Your task to perform on an android device: set default search engine in the chrome app Image 0: 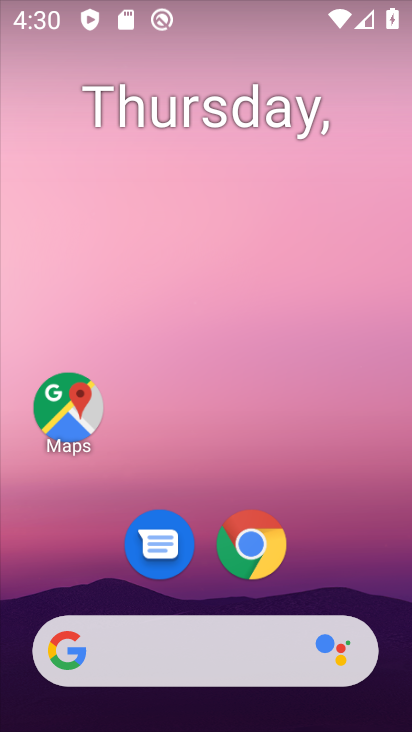
Step 0: click (253, 533)
Your task to perform on an android device: set default search engine in the chrome app Image 1: 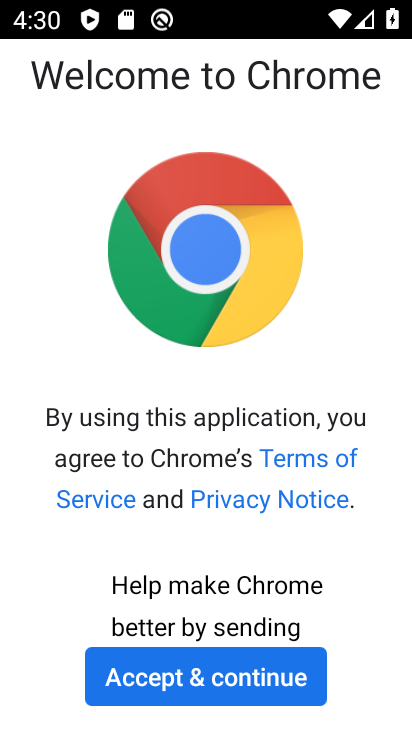
Step 1: click (232, 677)
Your task to perform on an android device: set default search engine in the chrome app Image 2: 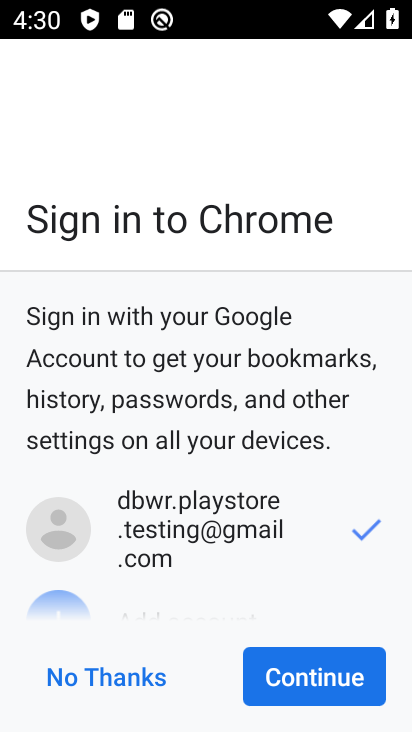
Step 2: click (275, 677)
Your task to perform on an android device: set default search engine in the chrome app Image 3: 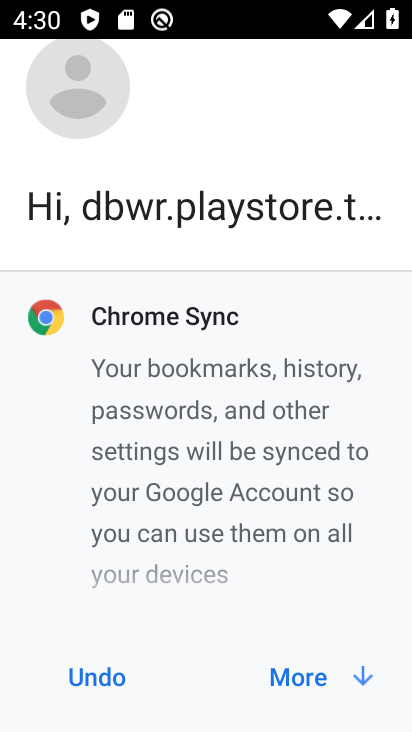
Step 3: click (275, 677)
Your task to perform on an android device: set default search engine in the chrome app Image 4: 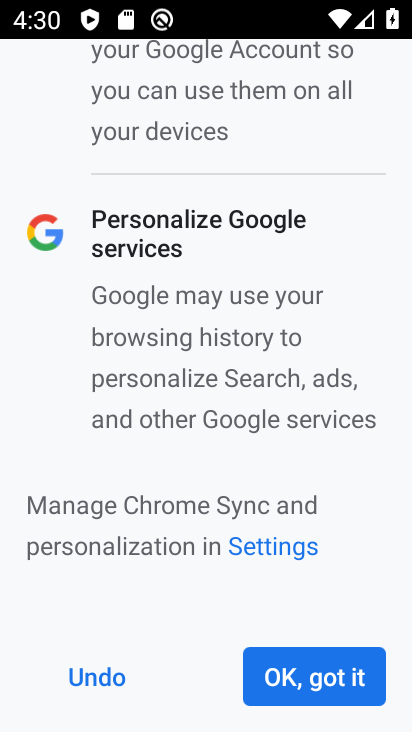
Step 4: click (275, 676)
Your task to perform on an android device: set default search engine in the chrome app Image 5: 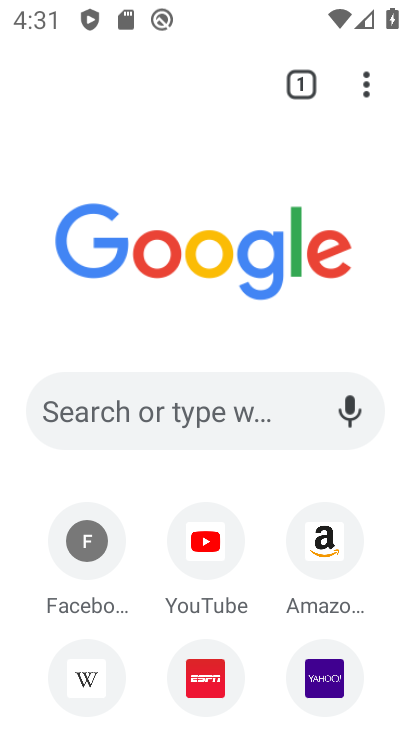
Step 5: click (359, 84)
Your task to perform on an android device: set default search engine in the chrome app Image 6: 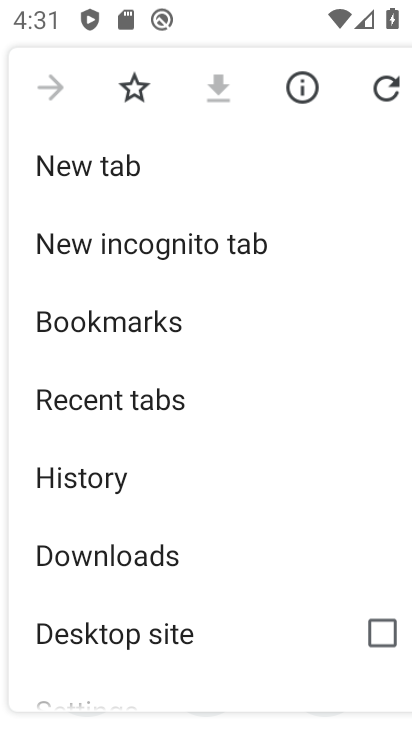
Step 6: drag from (100, 516) to (168, 297)
Your task to perform on an android device: set default search engine in the chrome app Image 7: 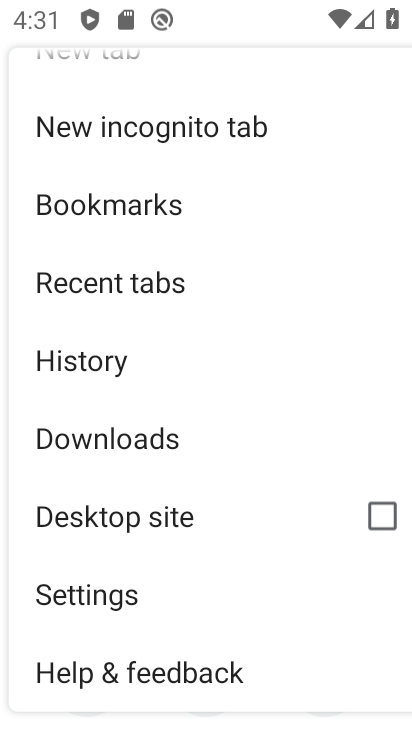
Step 7: click (75, 593)
Your task to perform on an android device: set default search engine in the chrome app Image 8: 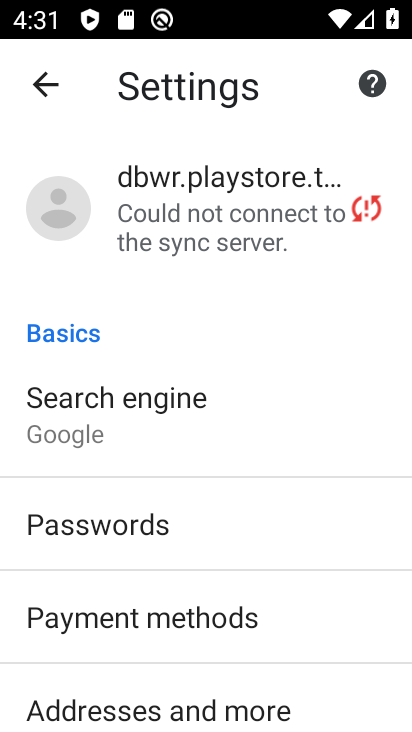
Step 8: click (105, 403)
Your task to perform on an android device: set default search engine in the chrome app Image 9: 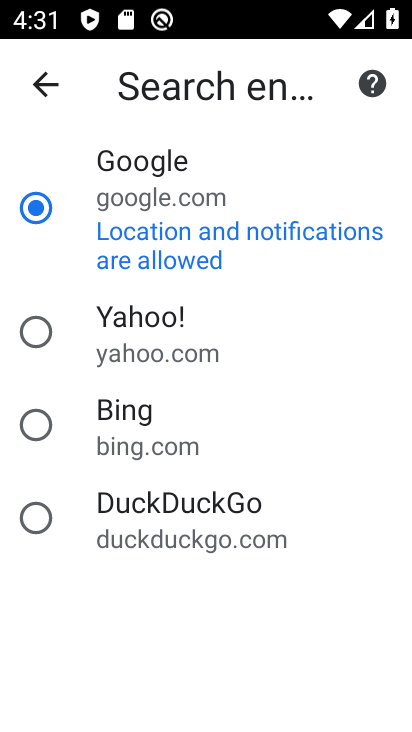
Step 9: click (140, 335)
Your task to perform on an android device: set default search engine in the chrome app Image 10: 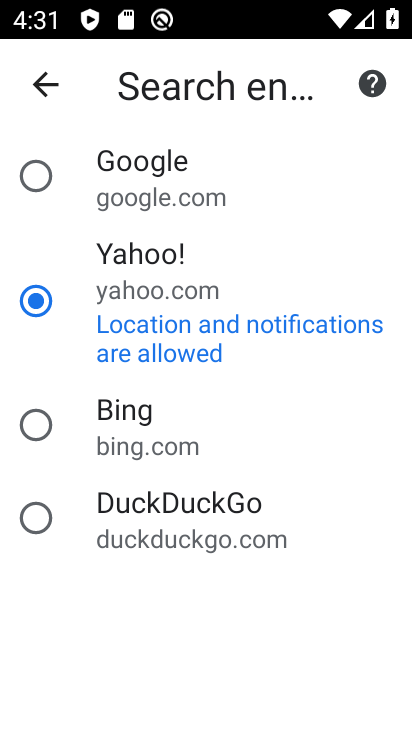
Step 10: task complete